Your task to perform on an android device: toggle improve location accuracy Image 0: 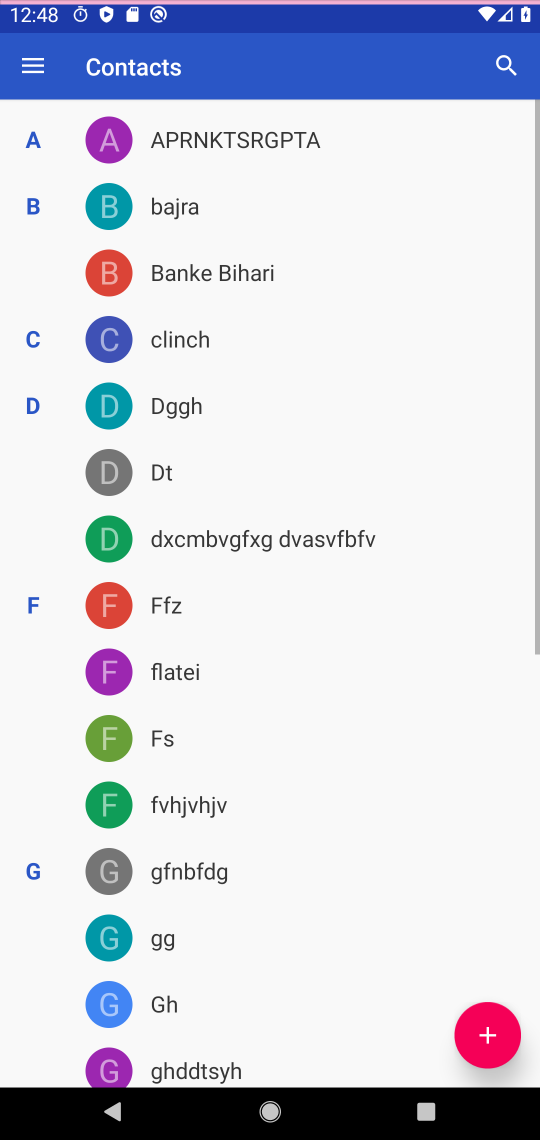
Step 0: press home button
Your task to perform on an android device: toggle improve location accuracy Image 1: 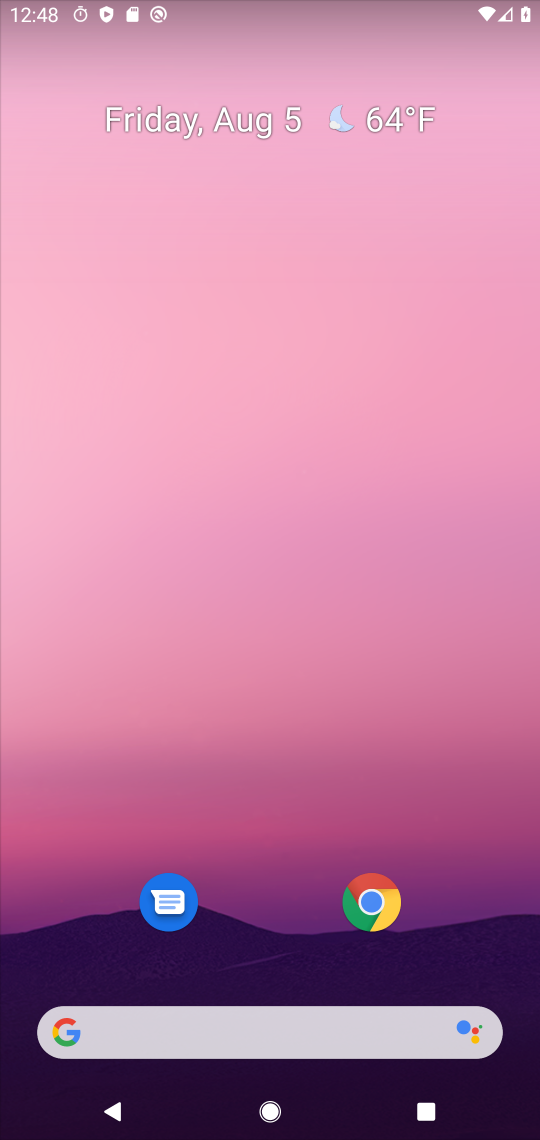
Step 1: drag from (318, 1064) to (290, 450)
Your task to perform on an android device: toggle improve location accuracy Image 2: 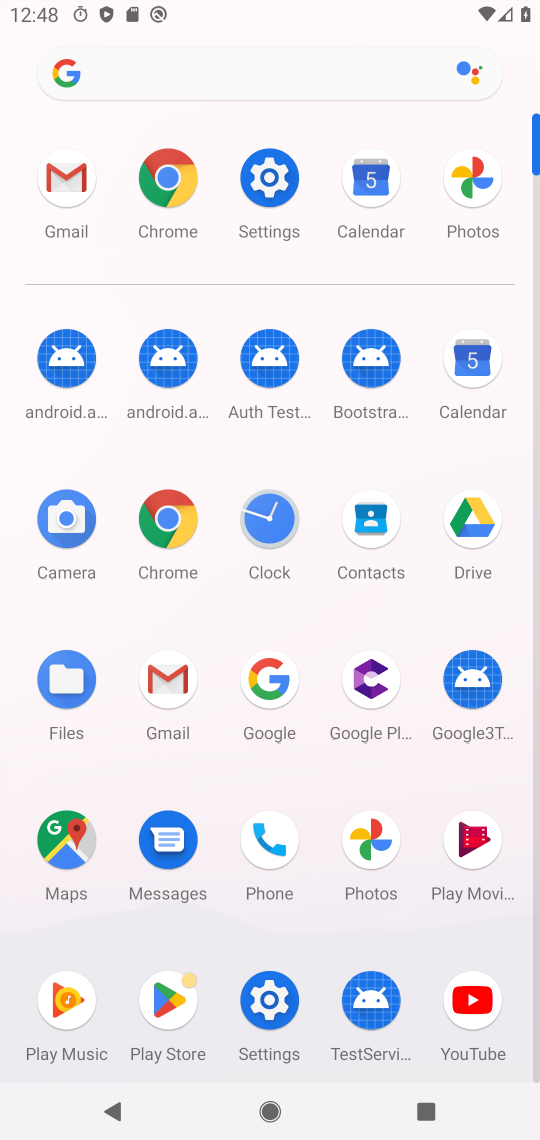
Step 2: click (251, 180)
Your task to perform on an android device: toggle improve location accuracy Image 3: 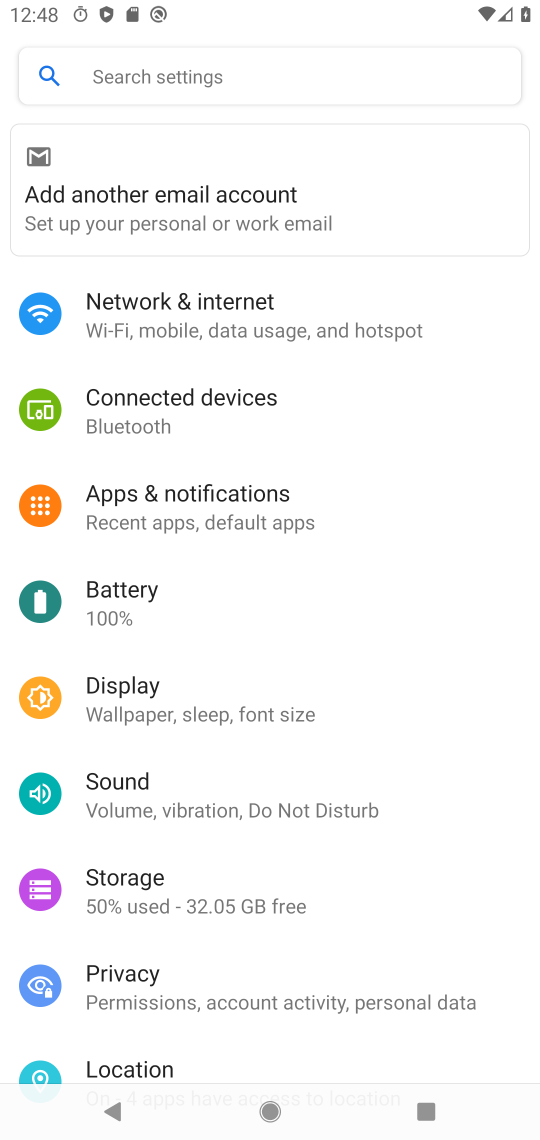
Step 3: click (129, 78)
Your task to perform on an android device: toggle improve location accuracy Image 4: 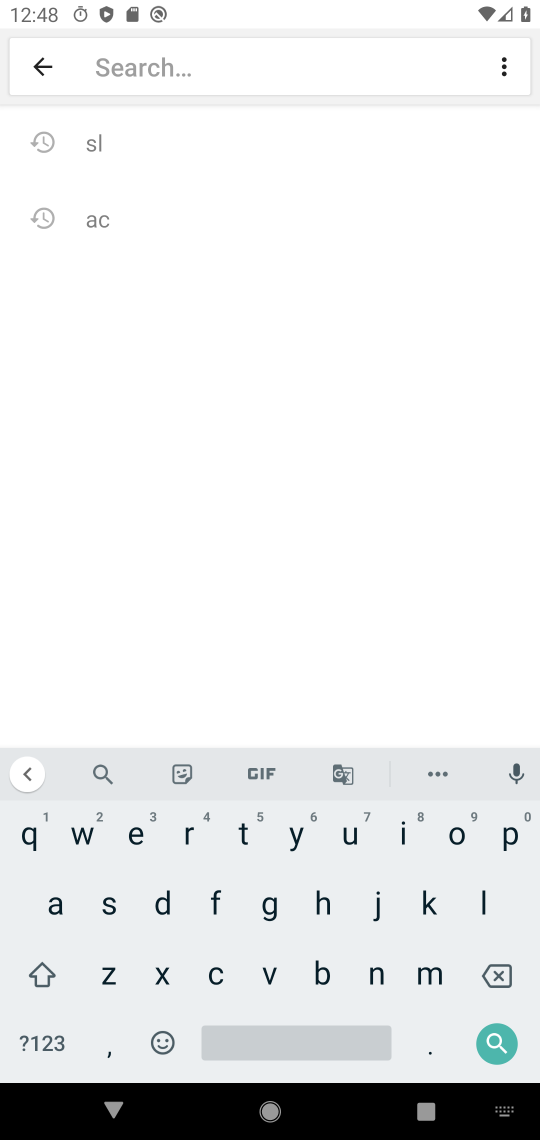
Step 4: click (36, 81)
Your task to perform on an android device: toggle improve location accuracy Image 5: 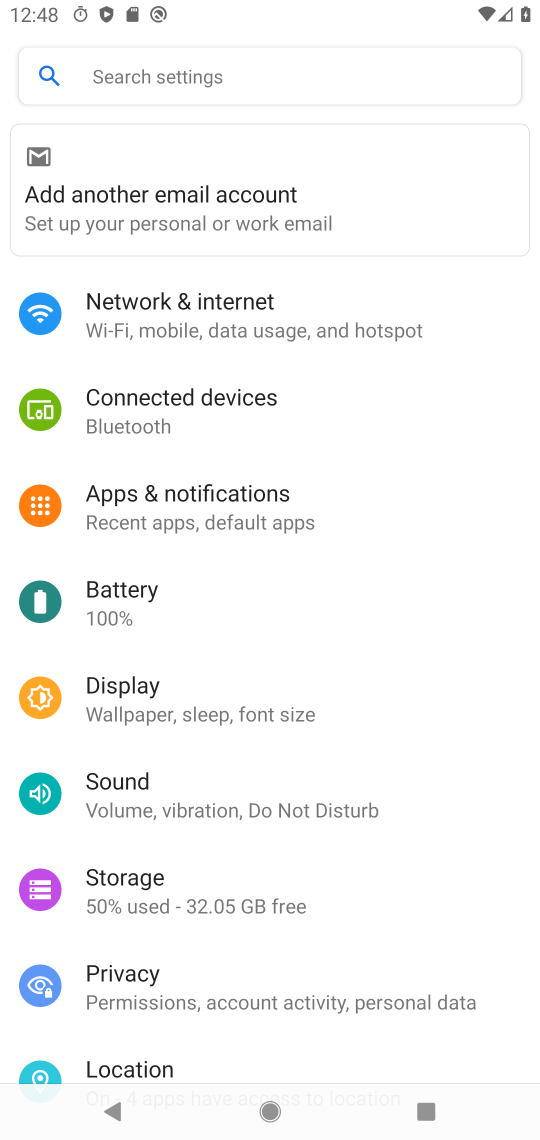
Step 5: click (170, 1043)
Your task to perform on an android device: toggle improve location accuracy Image 6: 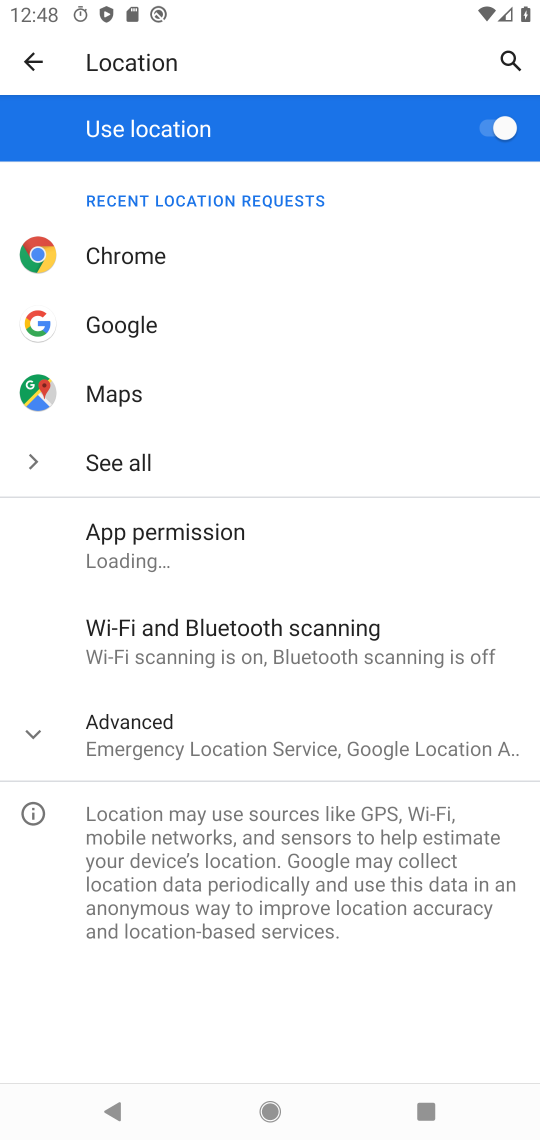
Step 6: click (48, 750)
Your task to perform on an android device: toggle improve location accuracy Image 7: 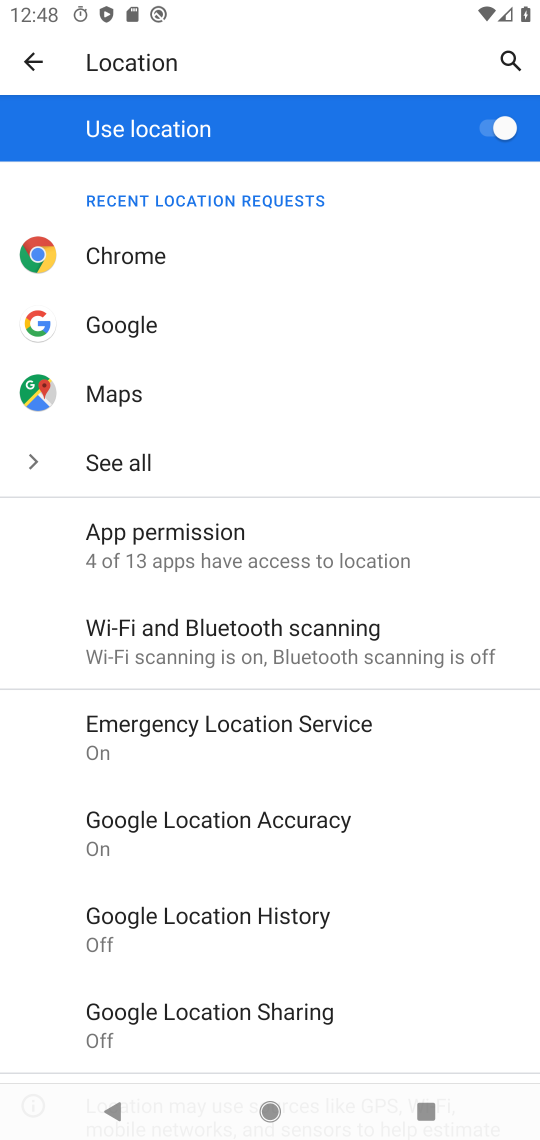
Step 7: click (313, 836)
Your task to perform on an android device: toggle improve location accuracy Image 8: 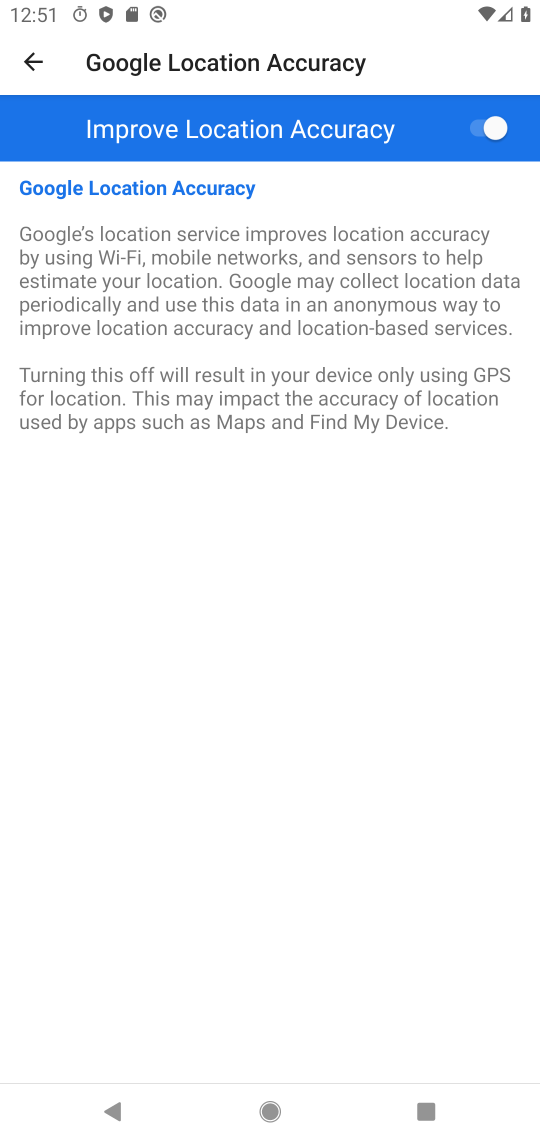
Step 8: task complete